Your task to perform on an android device: install app "VLC for Android" Image 0: 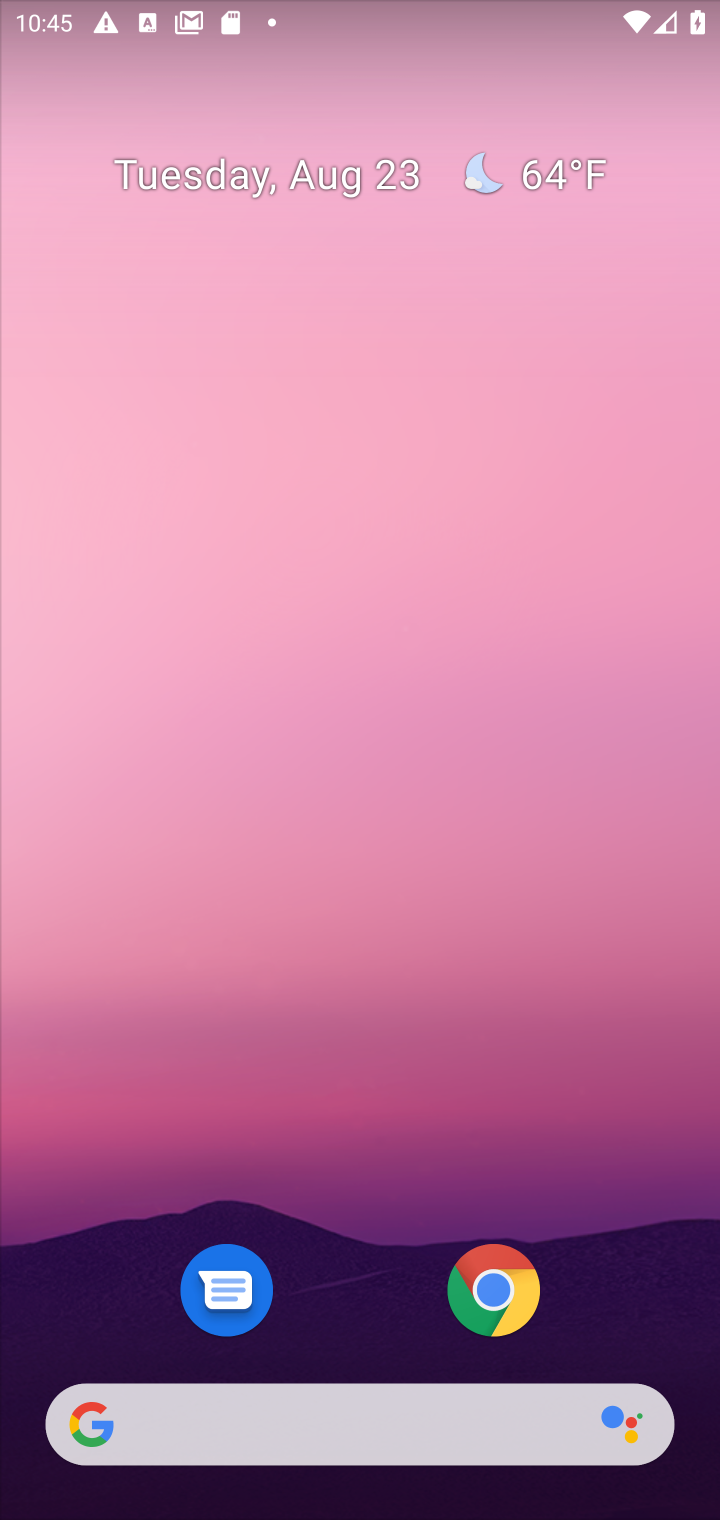
Step 0: drag from (345, 1270) to (349, 98)
Your task to perform on an android device: install app "VLC for Android" Image 1: 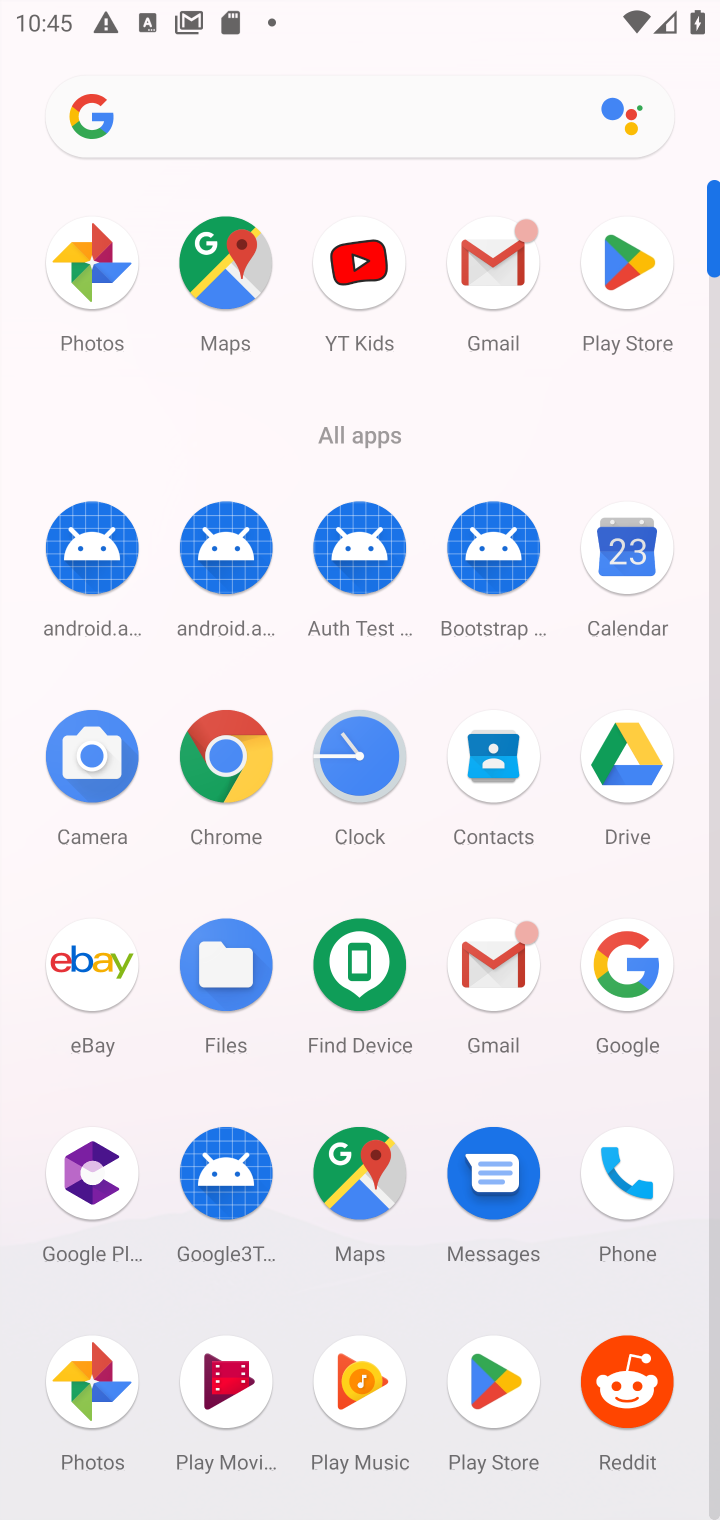
Step 1: click (619, 283)
Your task to perform on an android device: install app "VLC for Android" Image 2: 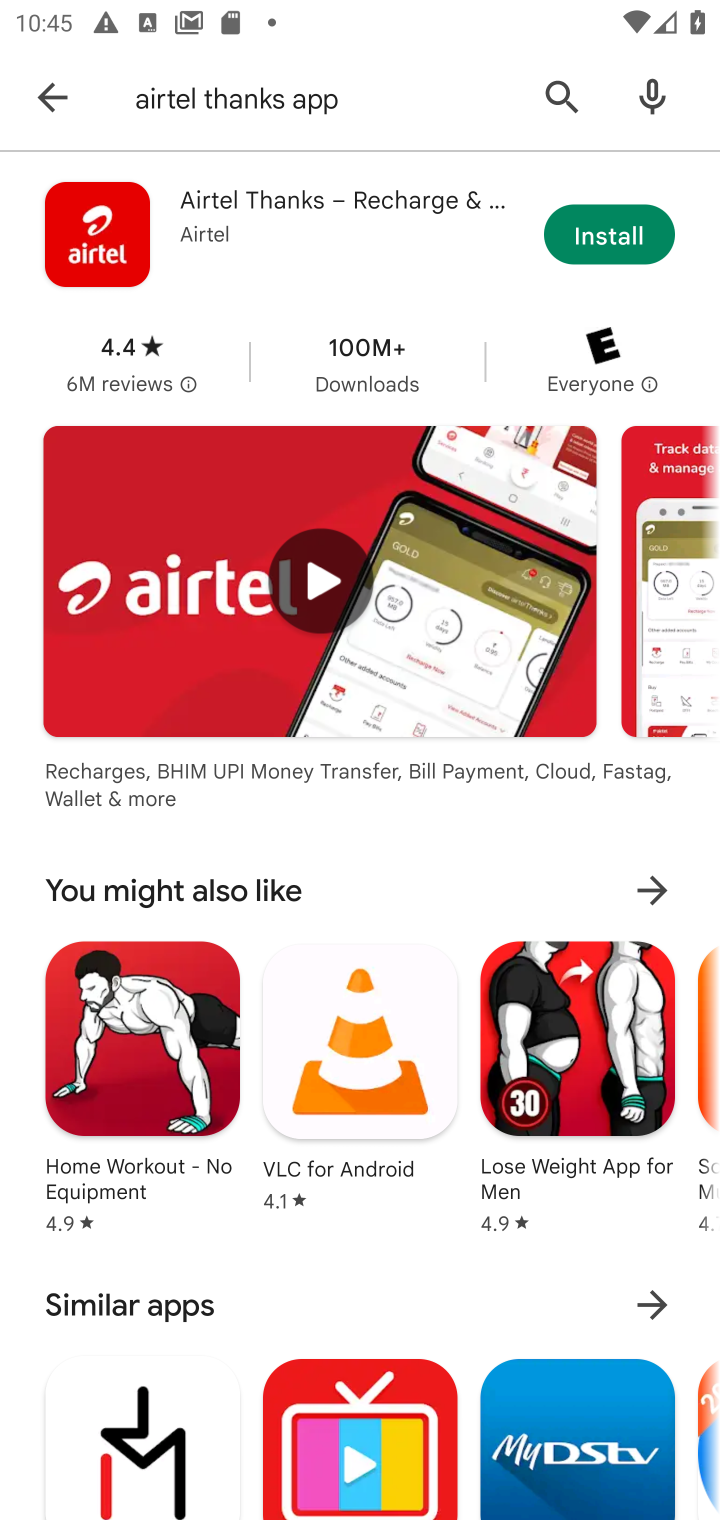
Step 2: click (561, 97)
Your task to perform on an android device: install app "VLC for Android" Image 3: 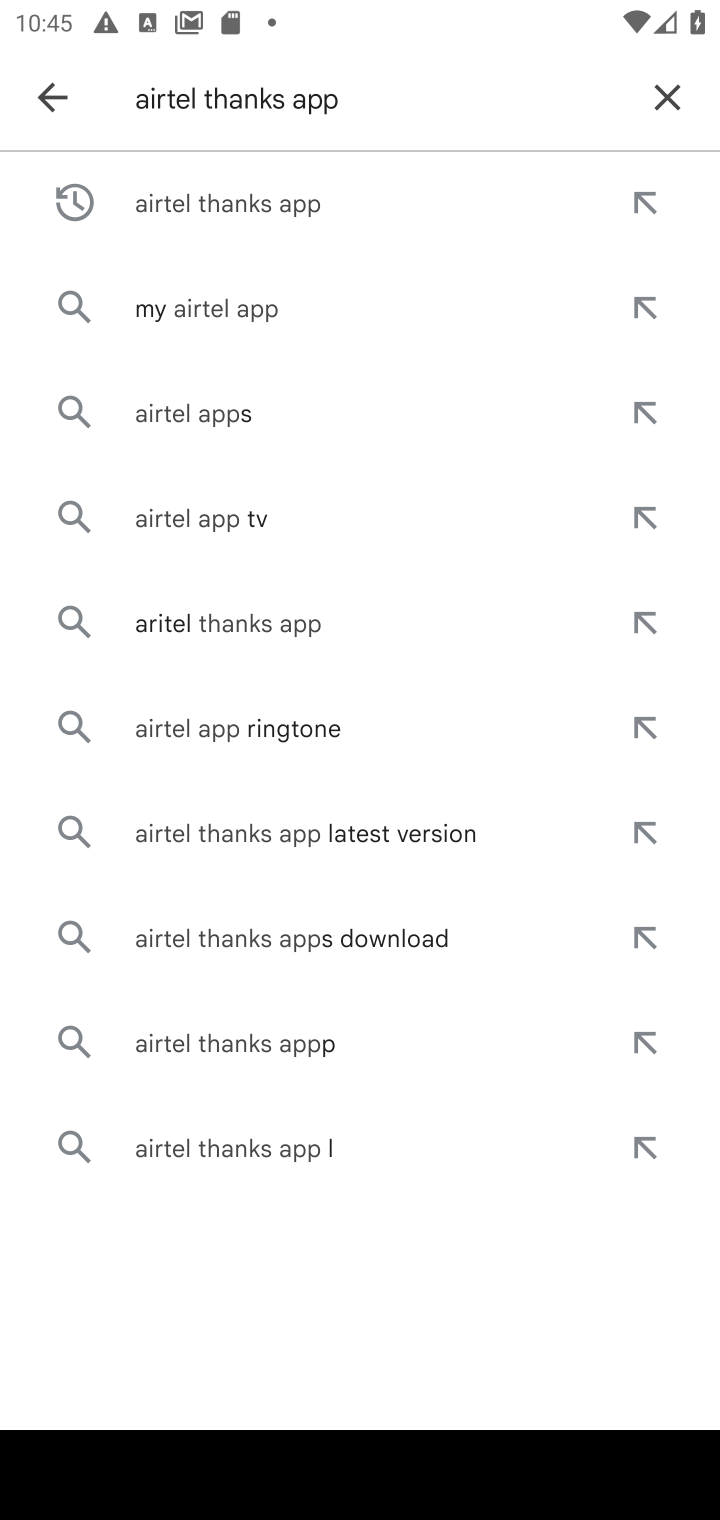
Step 3: click (660, 98)
Your task to perform on an android device: install app "VLC for Android" Image 4: 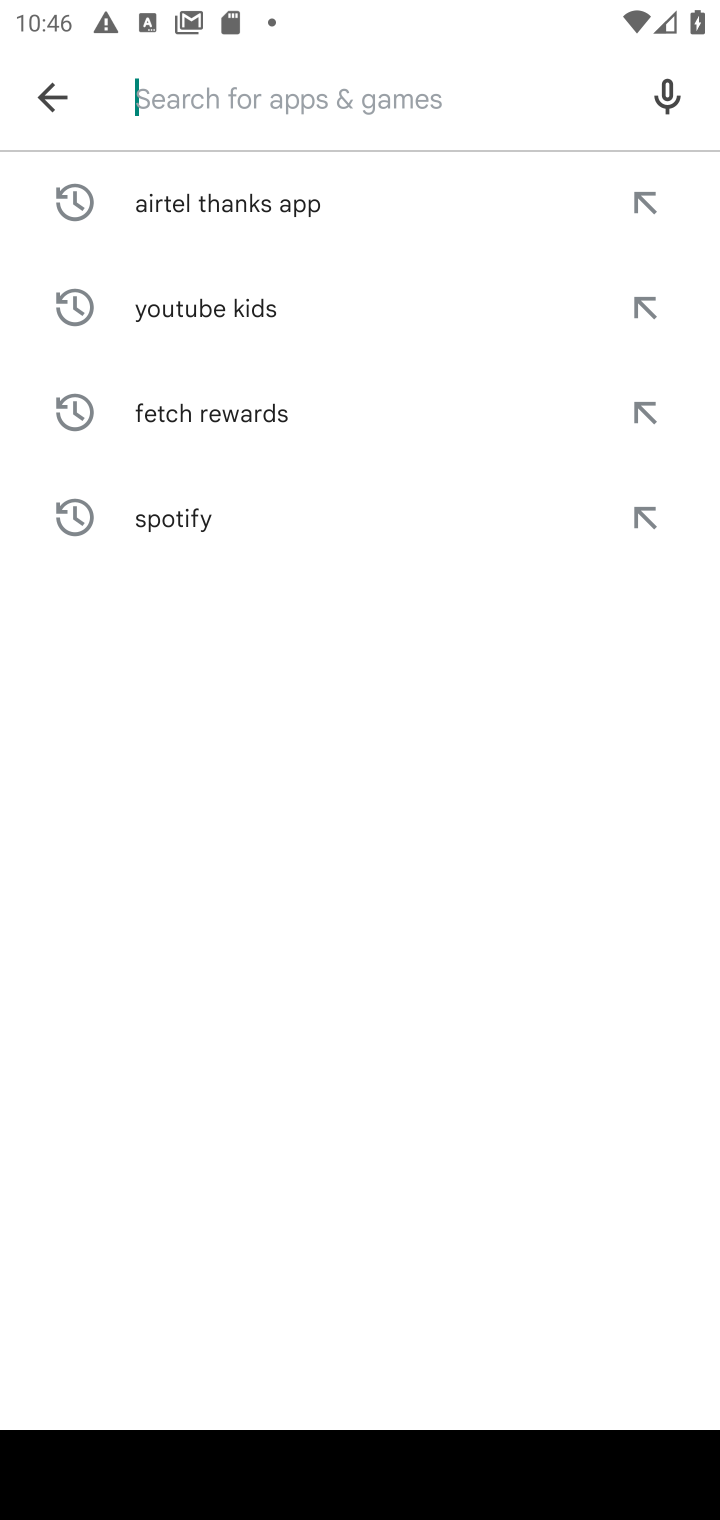
Step 4: type "VLC for Android"
Your task to perform on an android device: install app "VLC for Android" Image 5: 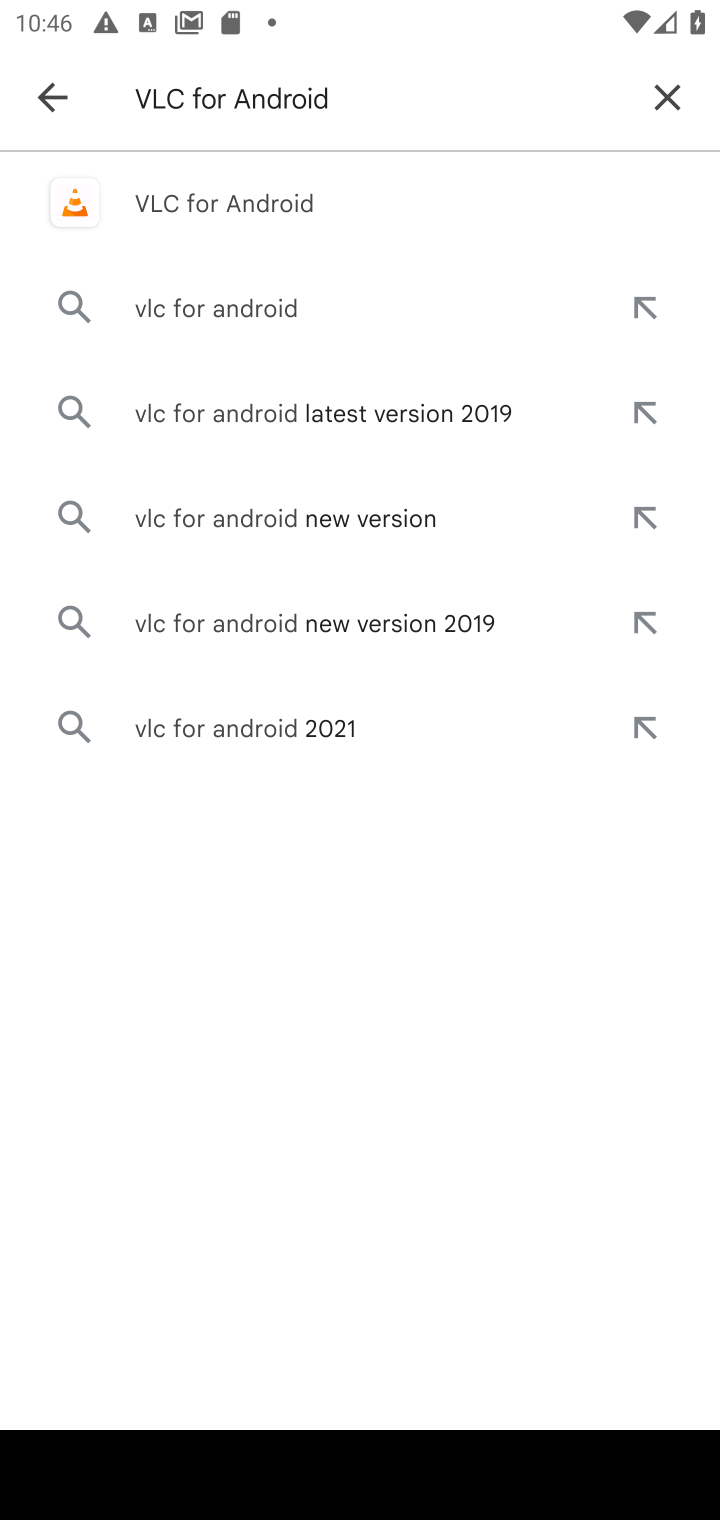
Step 5: click (245, 197)
Your task to perform on an android device: install app "VLC for Android" Image 6: 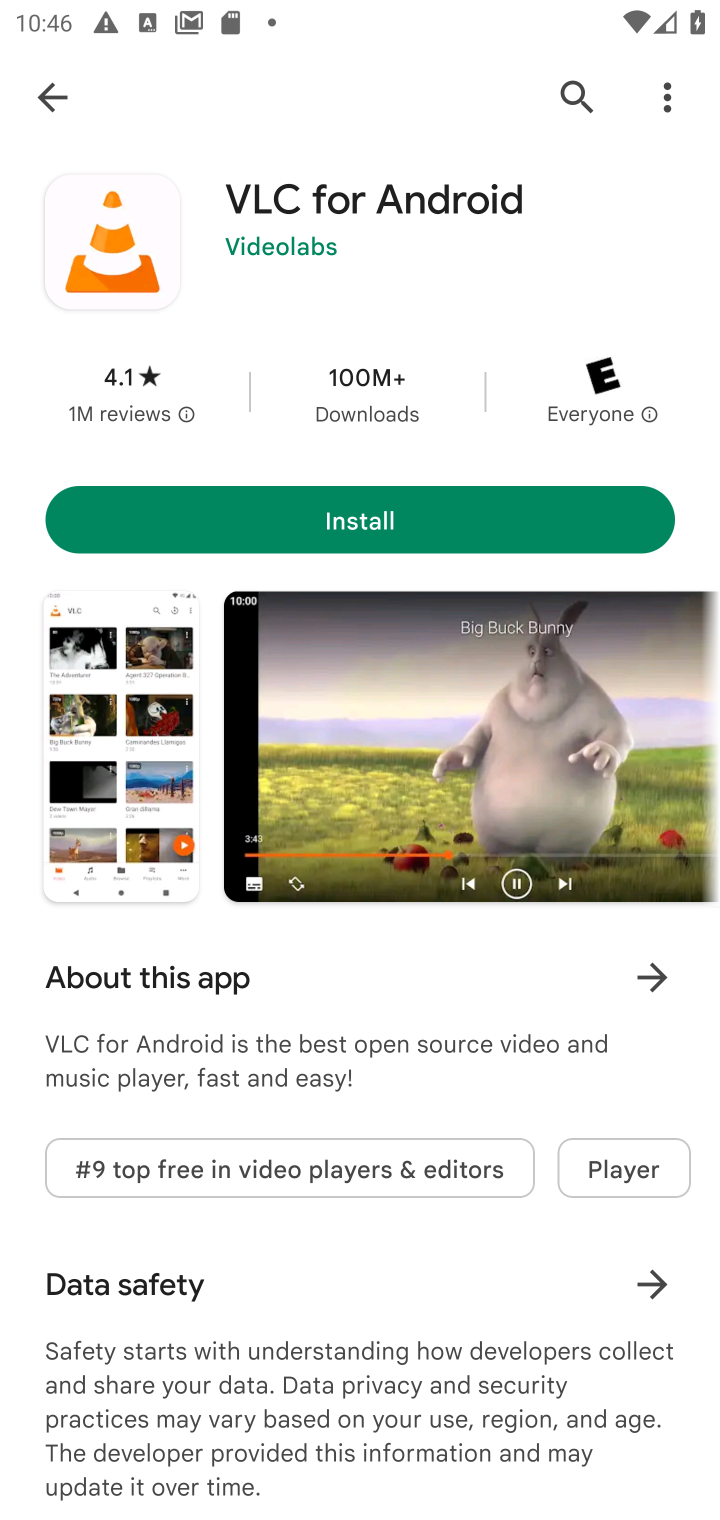
Step 6: click (329, 513)
Your task to perform on an android device: install app "VLC for Android" Image 7: 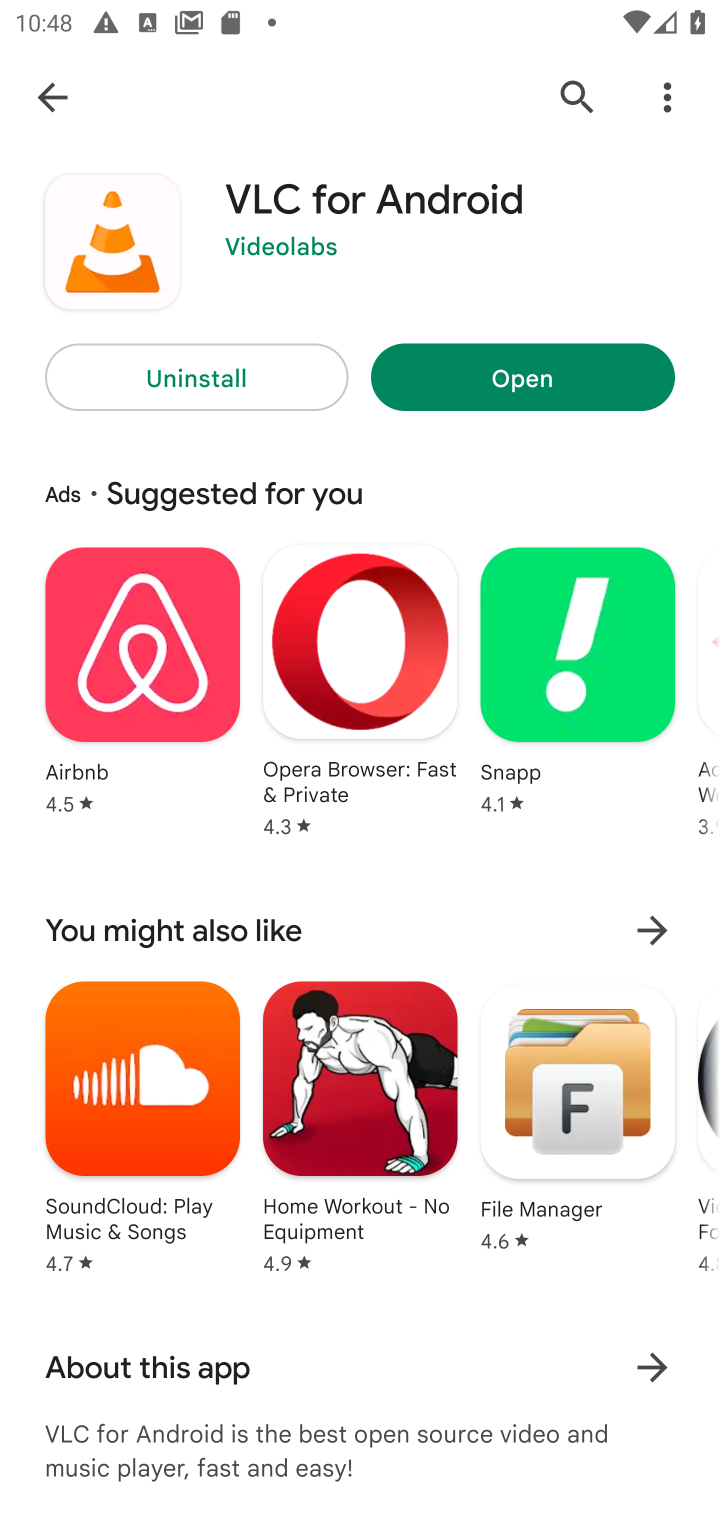
Step 7: task complete